Your task to perform on an android device: Find coffee shops on Maps Image 0: 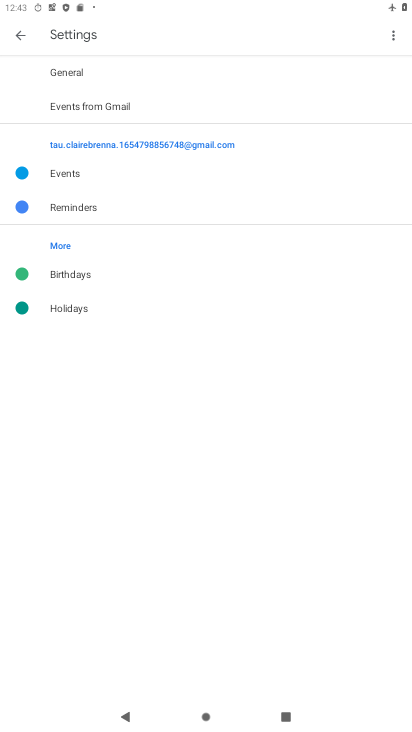
Step 0: press home button
Your task to perform on an android device: Find coffee shops on Maps Image 1: 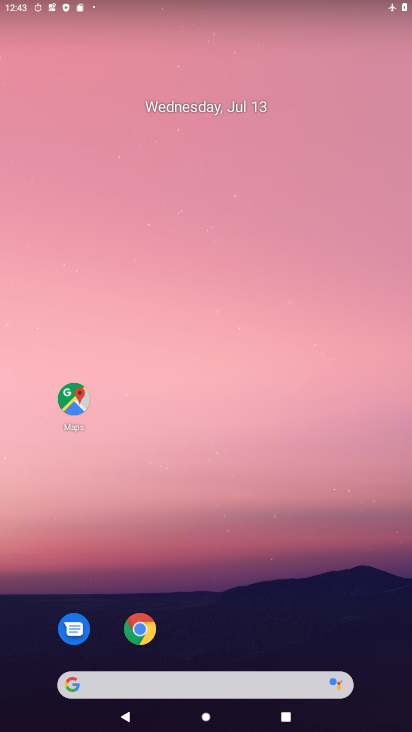
Step 1: click (73, 411)
Your task to perform on an android device: Find coffee shops on Maps Image 2: 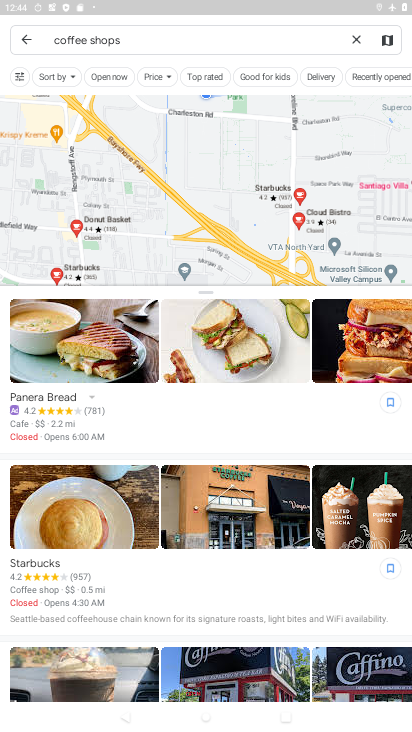
Step 2: task complete